Your task to perform on an android device: empty trash in the gmail app Image 0: 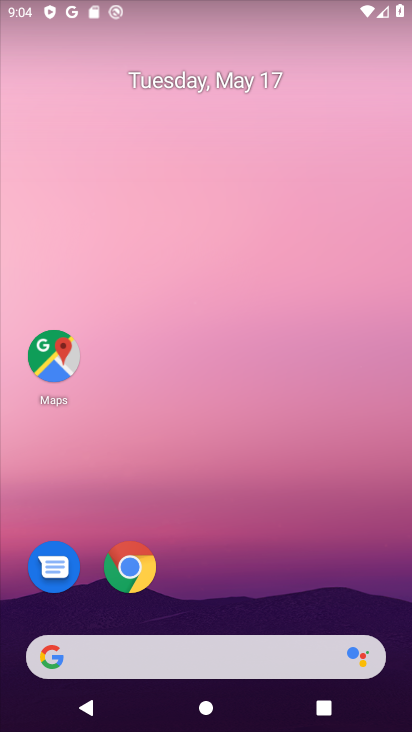
Step 0: drag from (339, 616) to (295, 9)
Your task to perform on an android device: empty trash in the gmail app Image 1: 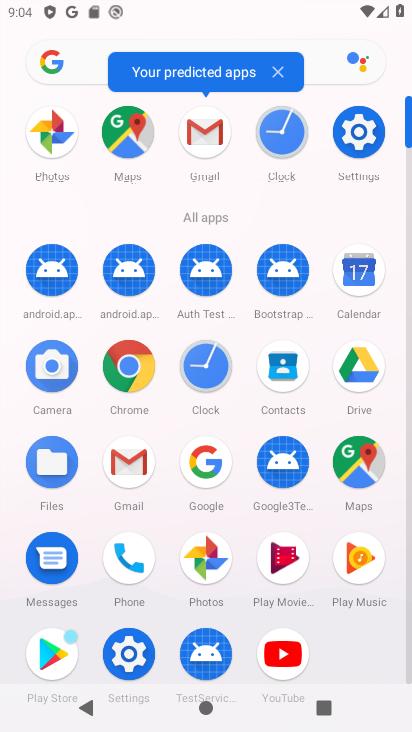
Step 1: click (204, 553)
Your task to perform on an android device: empty trash in the gmail app Image 2: 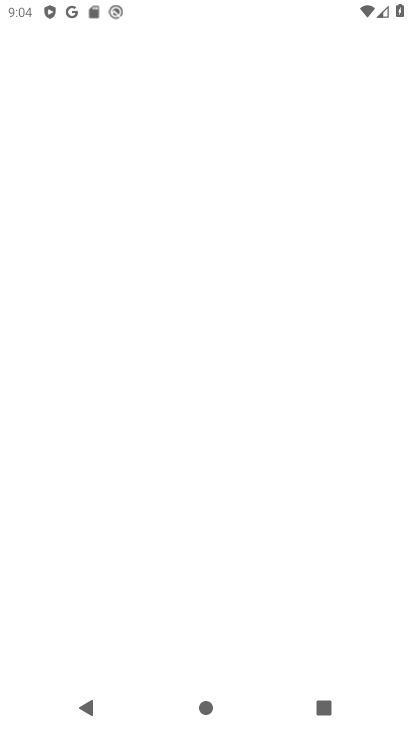
Step 2: press home button
Your task to perform on an android device: empty trash in the gmail app Image 3: 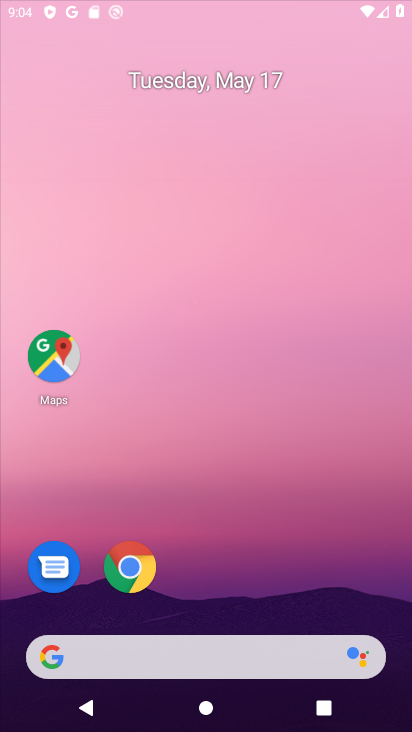
Step 3: drag from (374, 626) to (271, 19)
Your task to perform on an android device: empty trash in the gmail app Image 4: 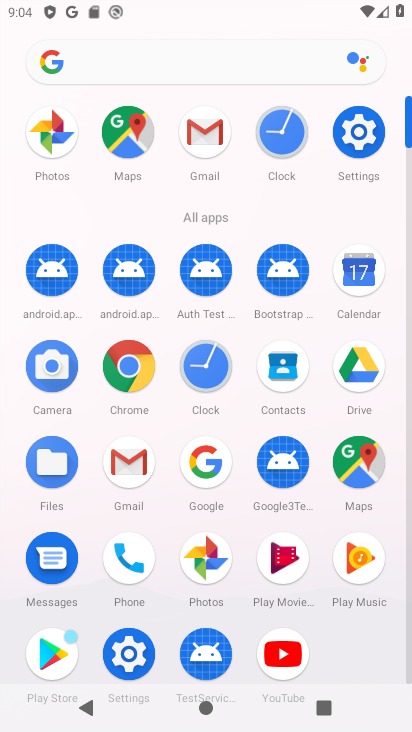
Step 4: click (145, 468)
Your task to perform on an android device: empty trash in the gmail app Image 5: 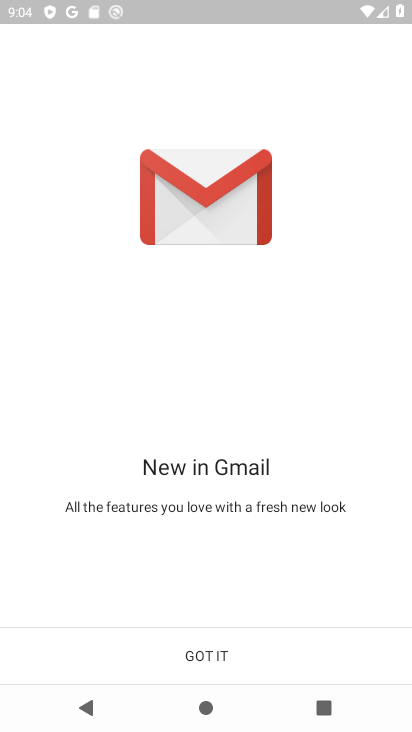
Step 5: click (220, 651)
Your task to perform on an android device: empty trash in the gmail app Image 6: 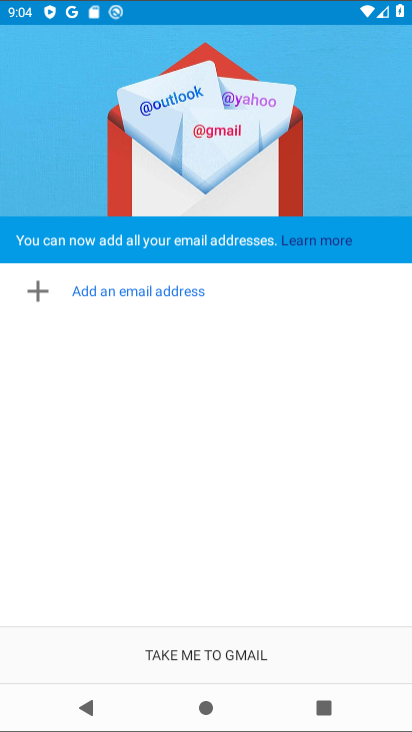
Step 6: click (220, 651)
Your task to perform on an android device: empty trash in the gmail app Image 7: 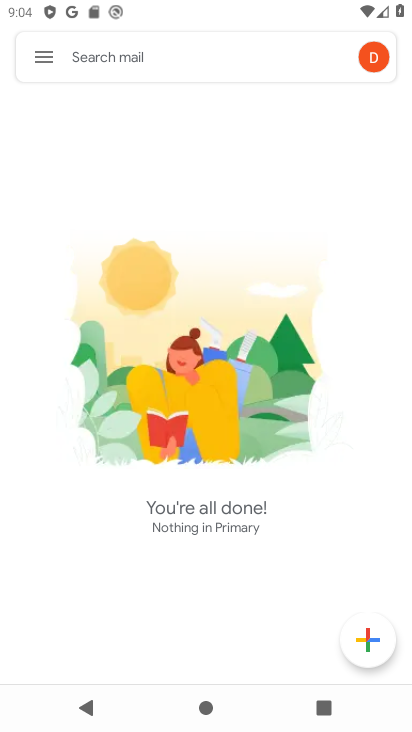
Step 7: click (70, 46)
Your task to perform on an android device: empty trash in the gmail app Image 8: 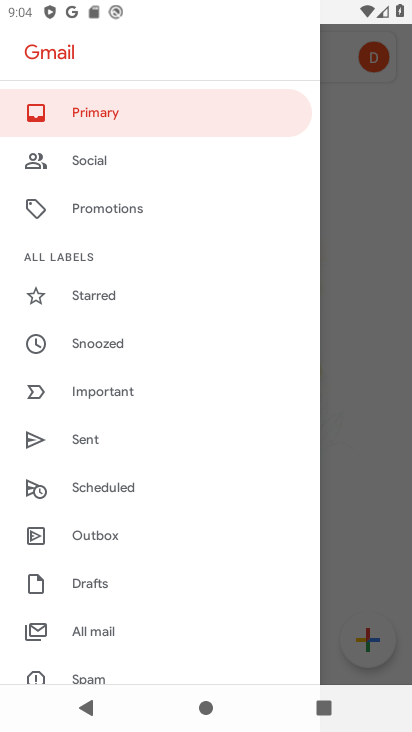
Step 8: drag from (111, 609) to (99, 168)
Your task to perform on an android device: empty trash in the gmail app Image 9: 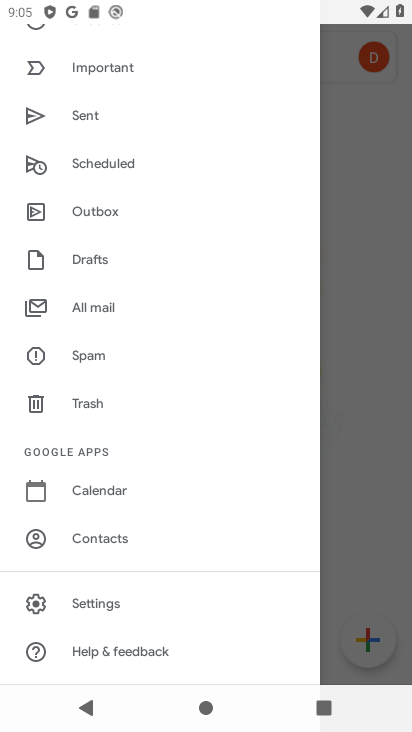
Step 9: click (89, 396)
Your task to perform on an android device: empty trash in the gmail app Image 10: 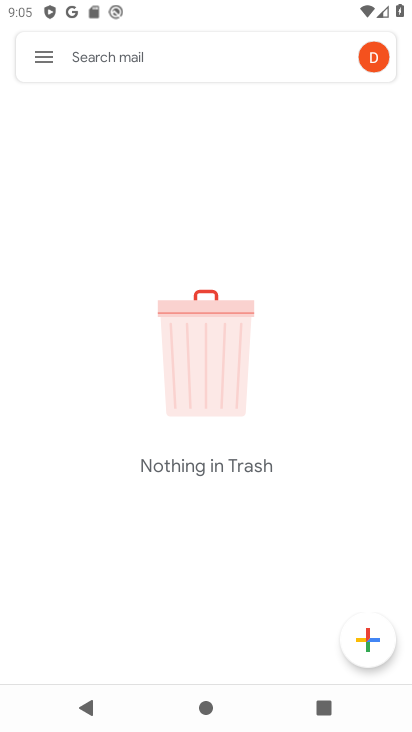
Step 10: task complete